Your task to perform on an android device: Go to location settings Image 0: 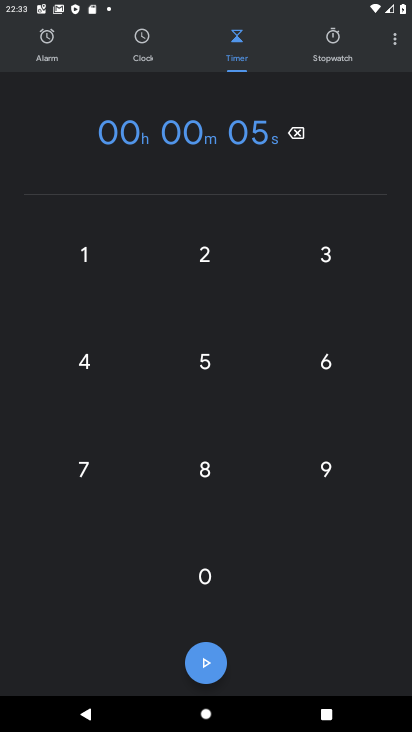
Step 0: press home button
Your task to perform on an android device: Go to location settings Image 1: 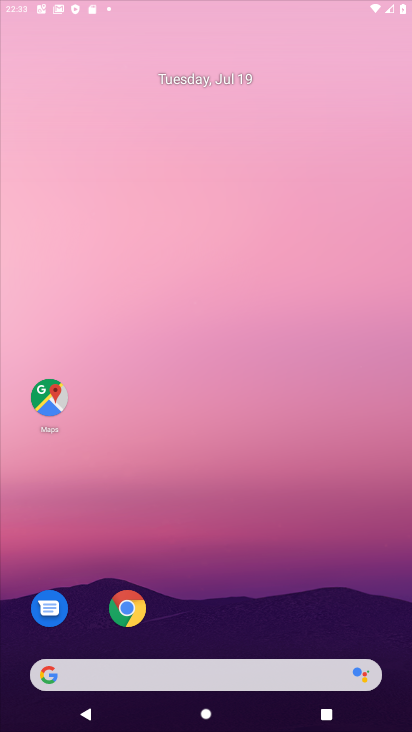
Step 1: drag from (365, 584) to (285, 120)
Your task to perform on an android device: Go to location settings Image 2: 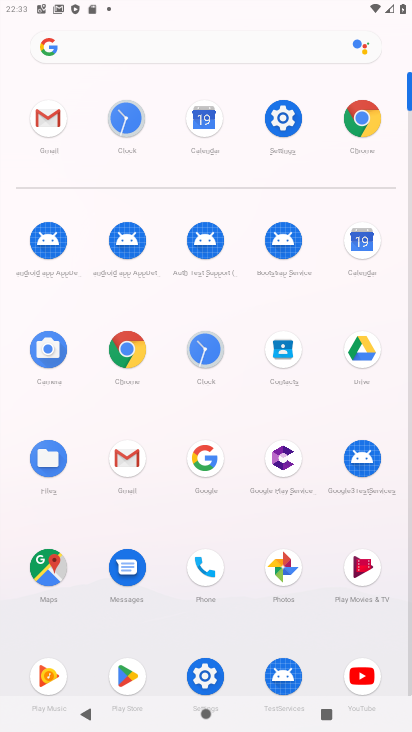
Step 2: click (283, 123)
Your task to perform on an android device: Go to location settings Image 3: 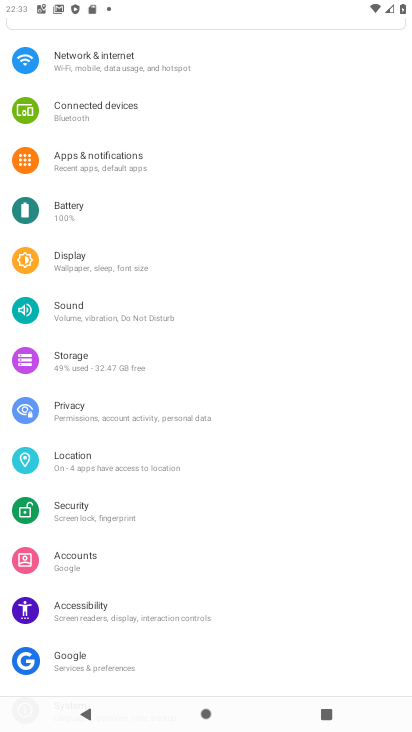
Step 3: click (87, 454)
Your task to perform on an android device: Go to location settings Image 4: 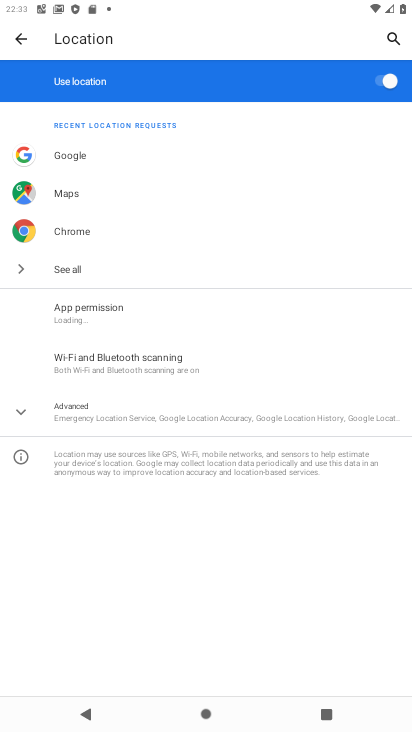
Step 4: task complete